Your task to perform on an android device: Open Youtube and go to the subscriptions tab Image 0: 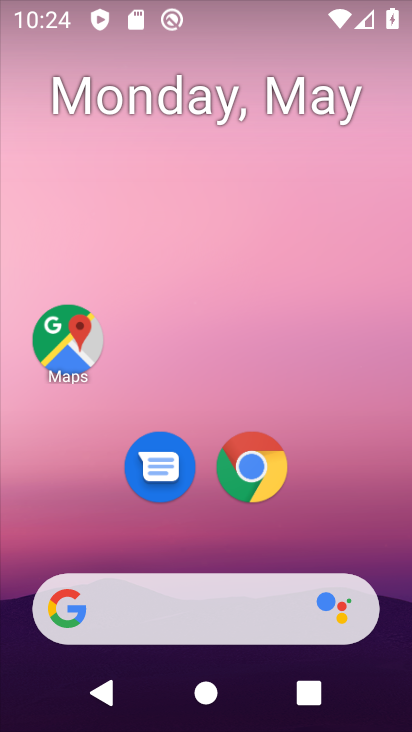
Step 0: drag from (253, 497) to (282, 139)
Your task to perform on an android device: Open Youtube and go to the subscriptions tab Image 1: 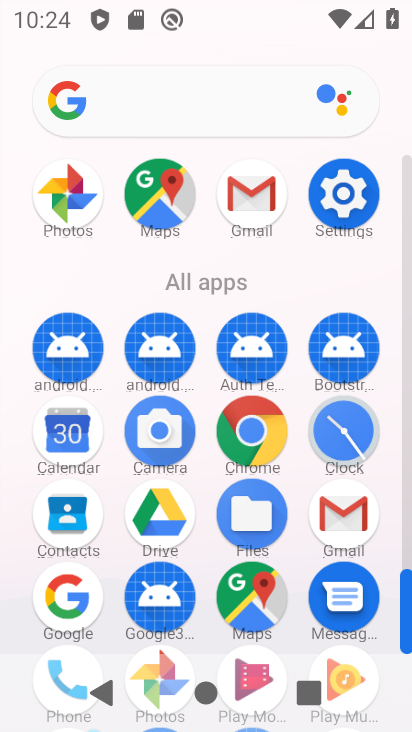
Step 1: drag from (281, 595) to (299, 238)
Your task to perform on an android device: Open Youtube and go to the subscriptions tab Image 2: 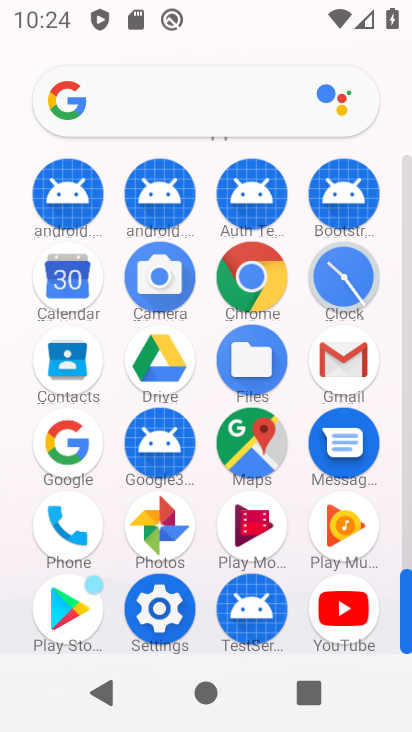
Step 2: click (338, 627)
Your task to perform on an android device: Open Youtube and go to the subscriptions tab Image 3: 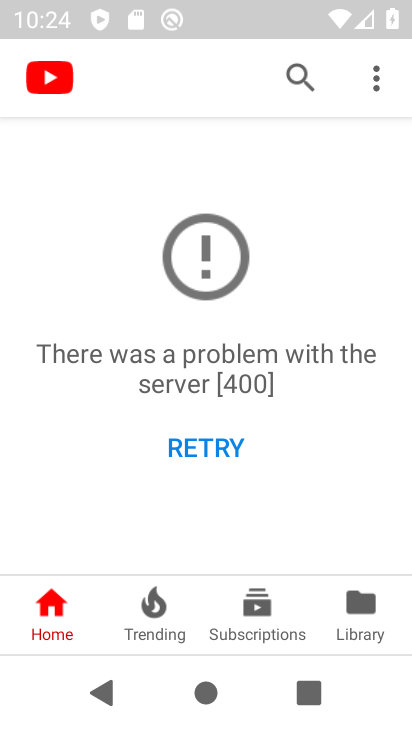
Step 3: click (273, 607)
Your task to perform on an android device: Open Youtube and go to the subscriptions tab Image 4: 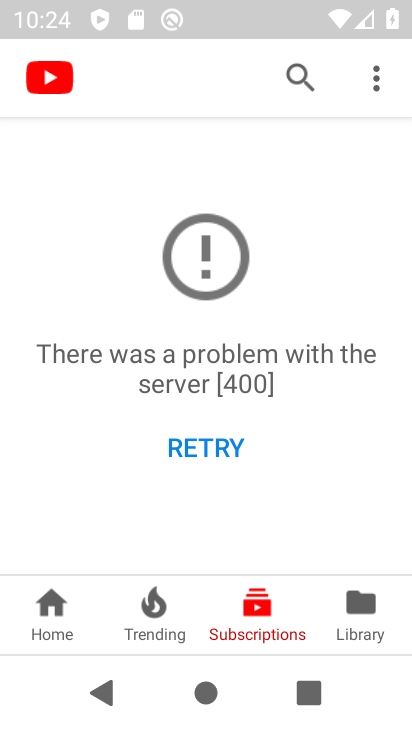
Step 4: task complete